Your task to perform on an android device: Go to sound settings Image 0: 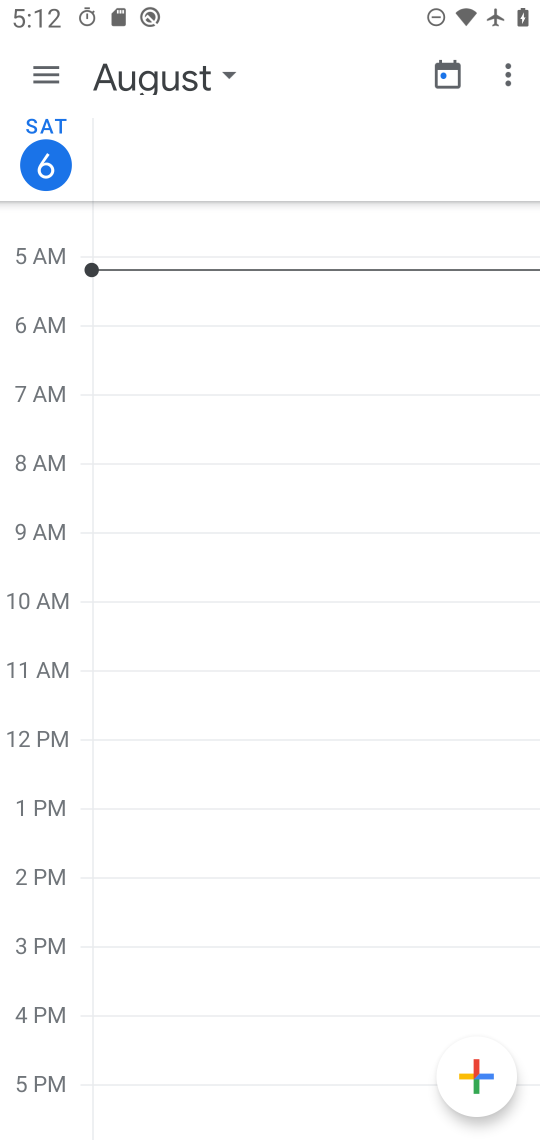
Step 0: press home button
Your task to perform on an android device: Go to sound settings Image 1: 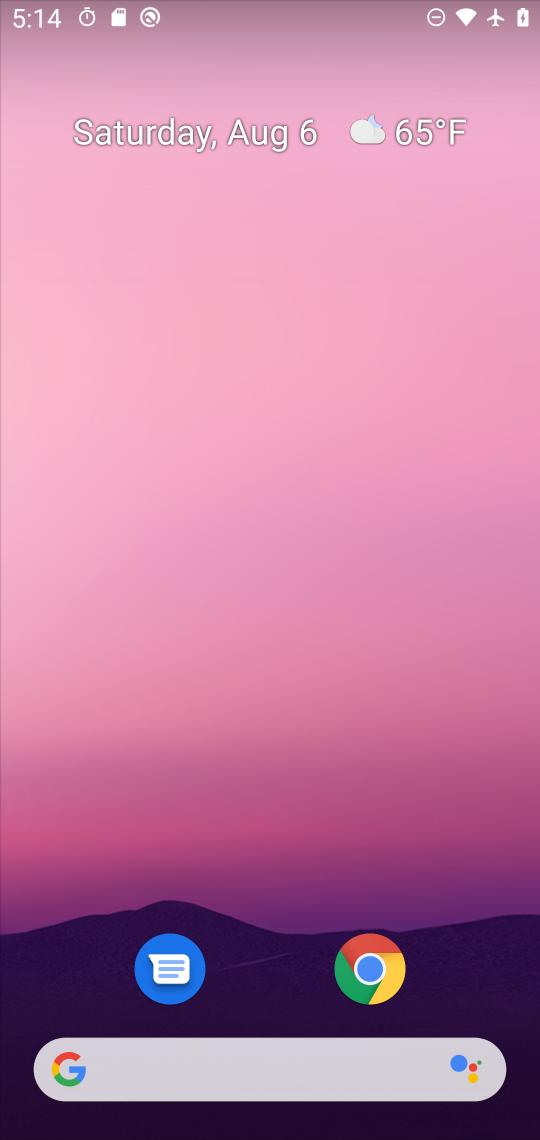
Step 1: drag from (236, 1009) to (239, 205)
Your task to perform on an android device: Go to sound settings Image 2: 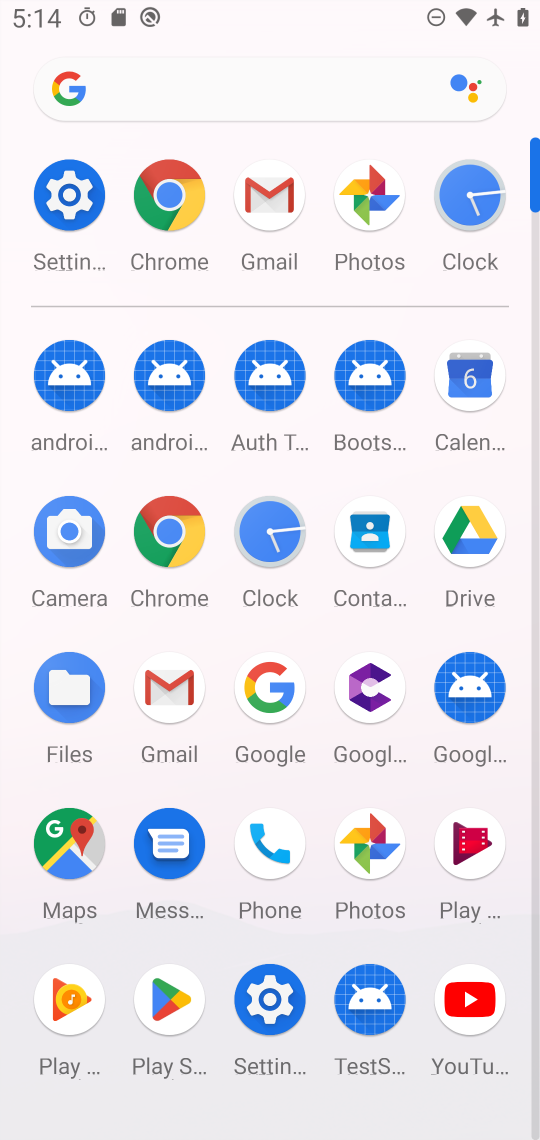
Step 2: click (69, 213)
Your task to perform on an android device: Go to sound settings Image 3: 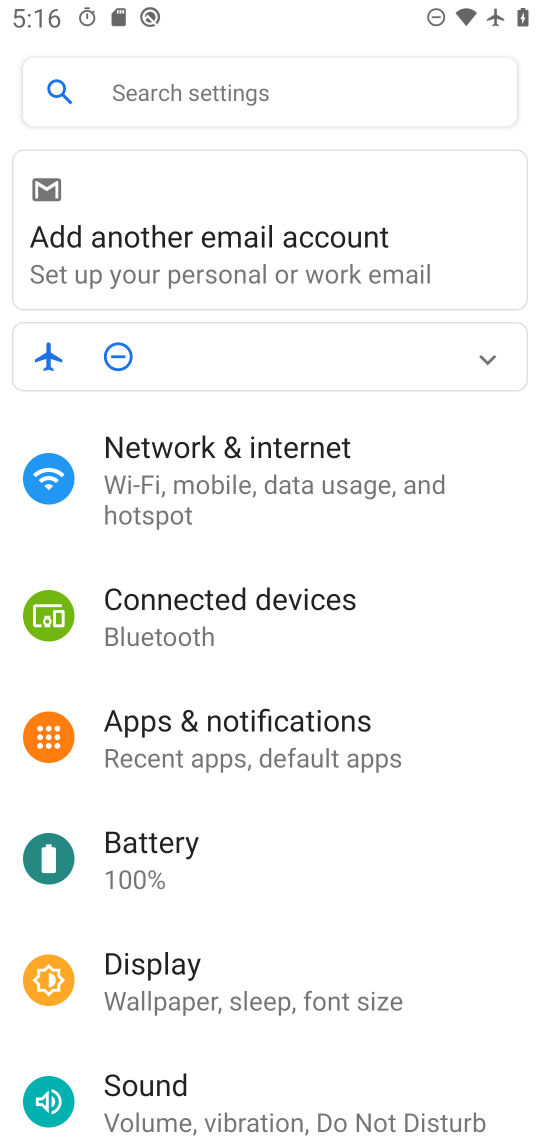
Step 3: press home button
Your task to perform on an android device: Go to sound settings Image 4: 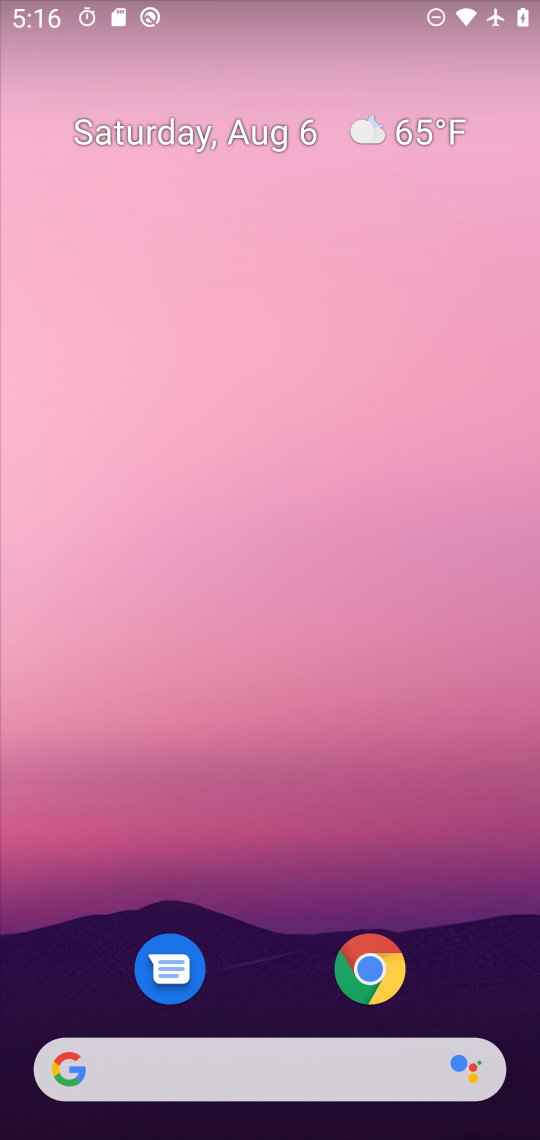
Step 4: drag from (205, 799) to (223, 8)
Your task to perform on an android device: Go to sound settings Image 5: 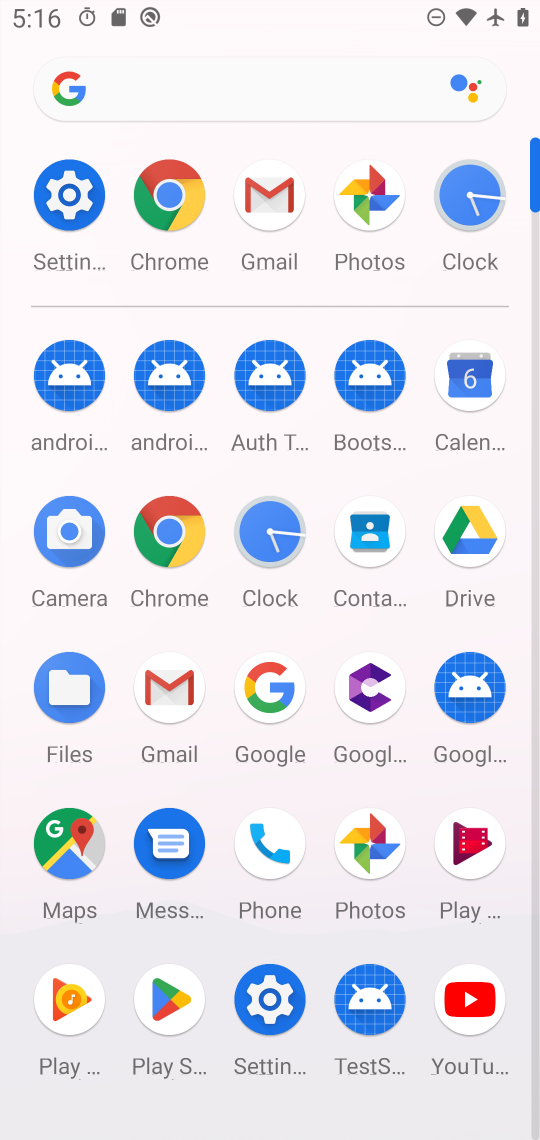
Step 5: click (267, 1017)
Your task to perform on an android device: Go to sound settings Image 6: 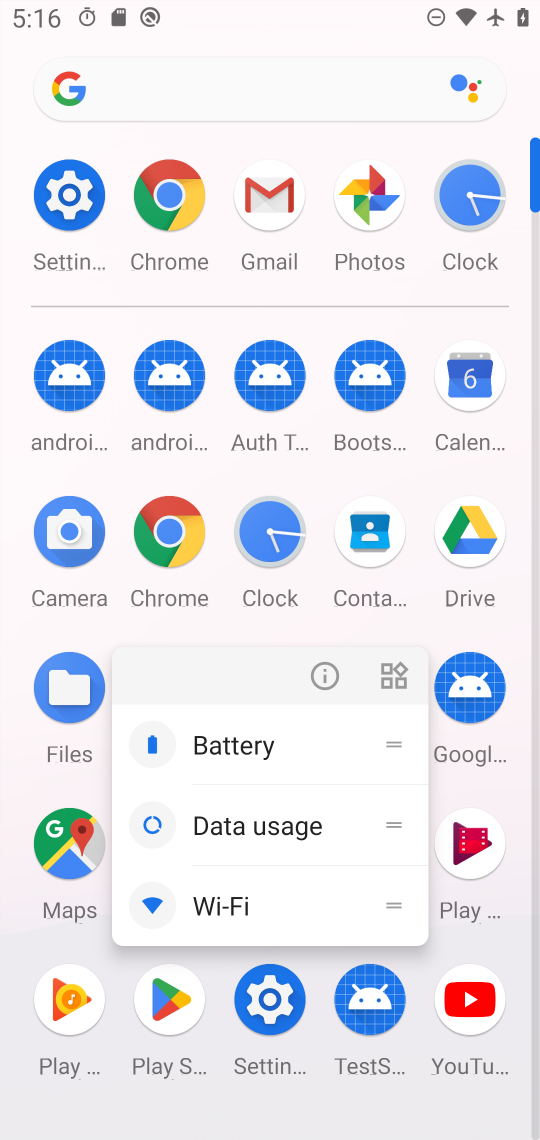
Step 6: click (267, 1017)
Your task to perform on an android device: Go to sound settings Image 7: 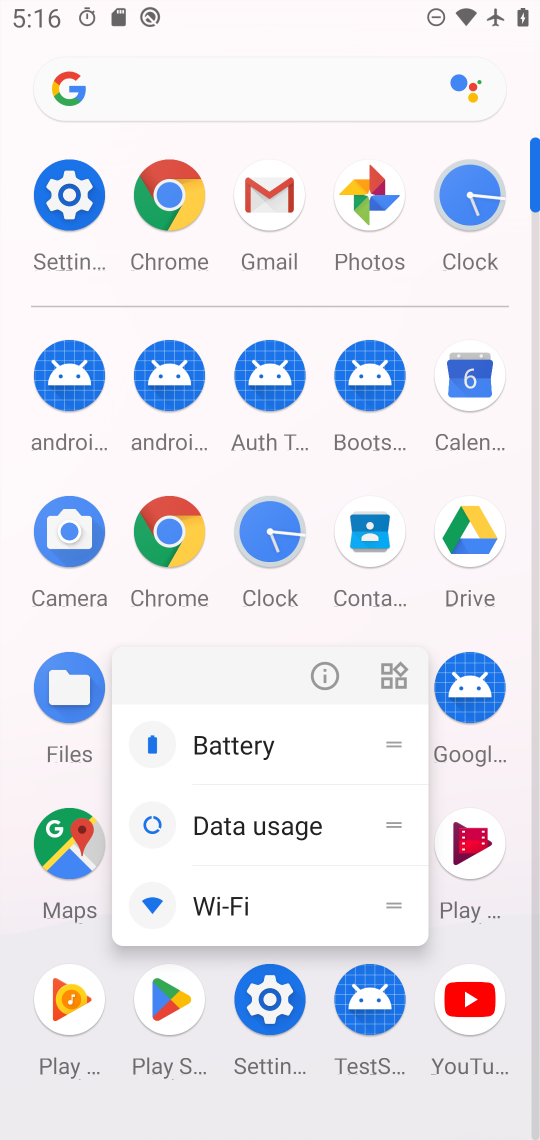
Step 7: click (267, 1017)
Your task to perform on an android device: Go to sound settings Image 8: 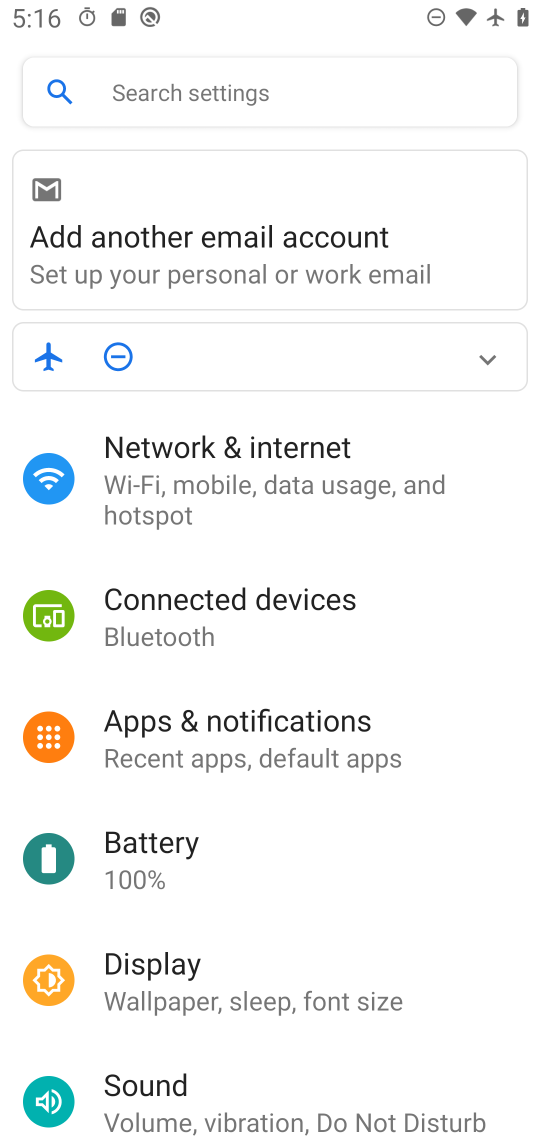
Step 8: click (175, 1097)
Your task to perform on an android device: Go to sound settings Image 9: 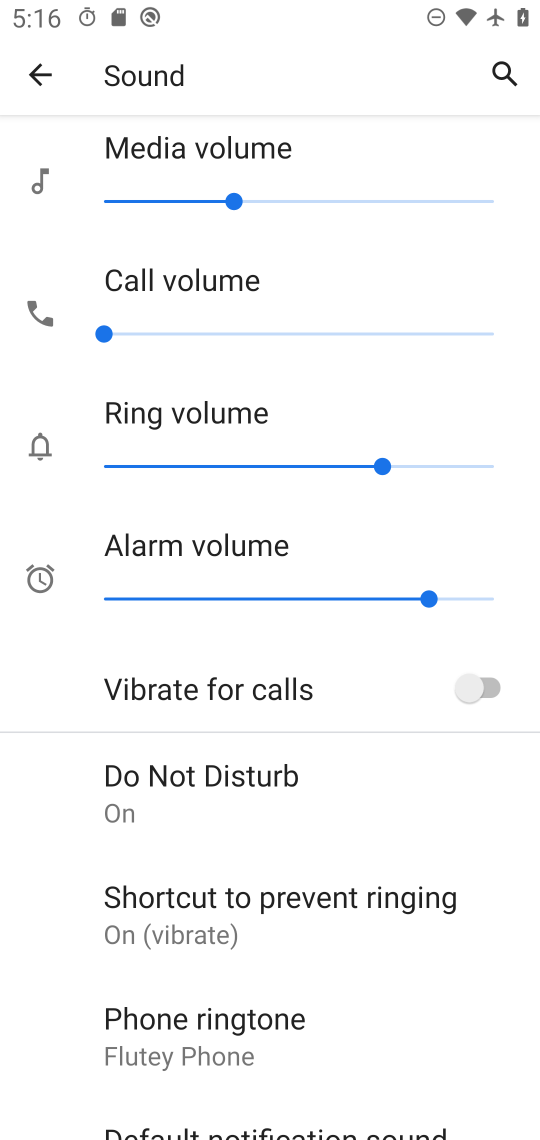
Step 9: task complete